Your task to perform on an android device: Go to Yahoo.com Image 0: 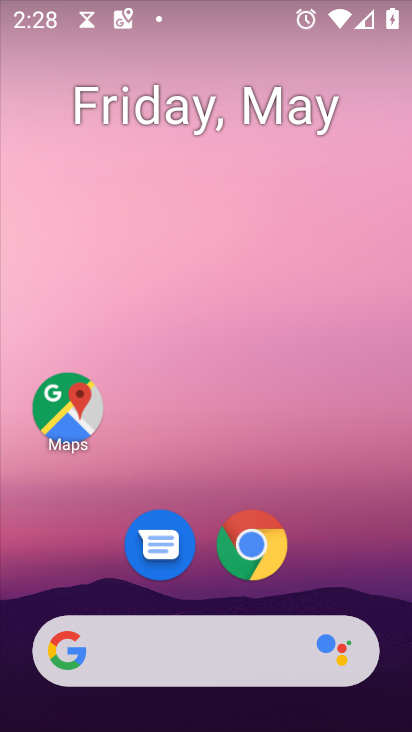
Step 0: click (250, 545)
Your task to perform on an android device: Go to Yahoo.com Image 1: 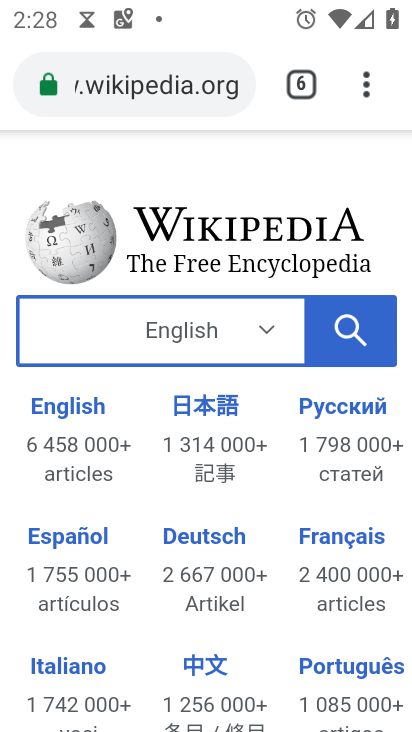
Step 1: click (304, 81)
Your task to perform on an android device: Go to Yahoo.com Image 2: 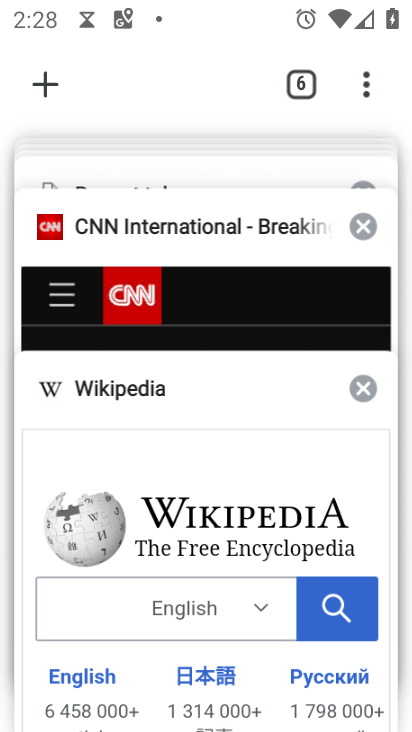
Step 2: drag from (288, 177) to (275, 493)
Your task to perform on an android device: Go to Yahoo.com Image 3: 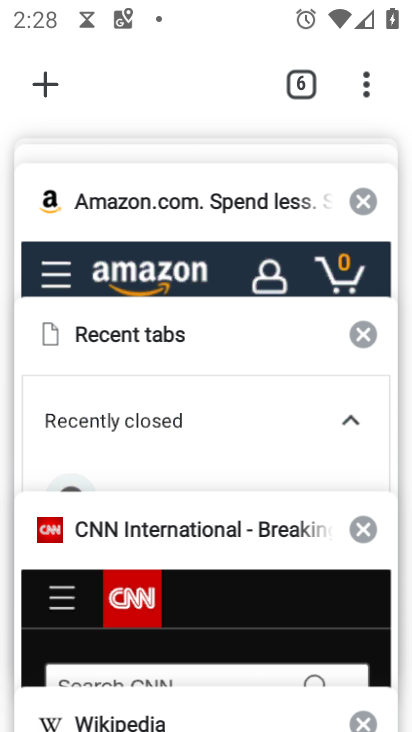
Step 3: drag from (214, 191) to (193, 471)
Your task to perform on an android device: Go to Yahoo.com Image 4: 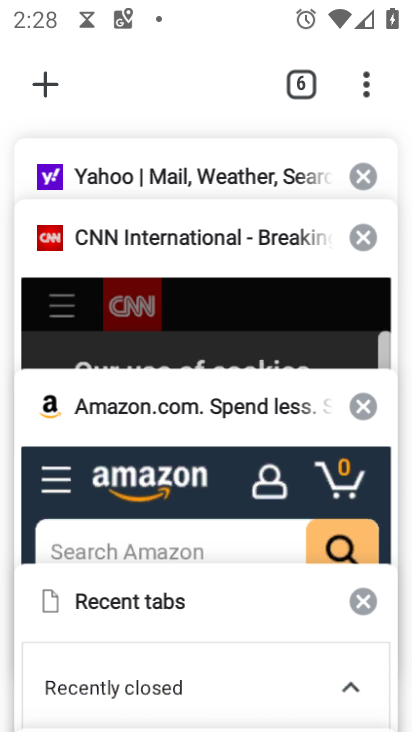
Step 4: click (191, 169)
Your task to perform on an android device: Go to Yahoo.com Image 5: 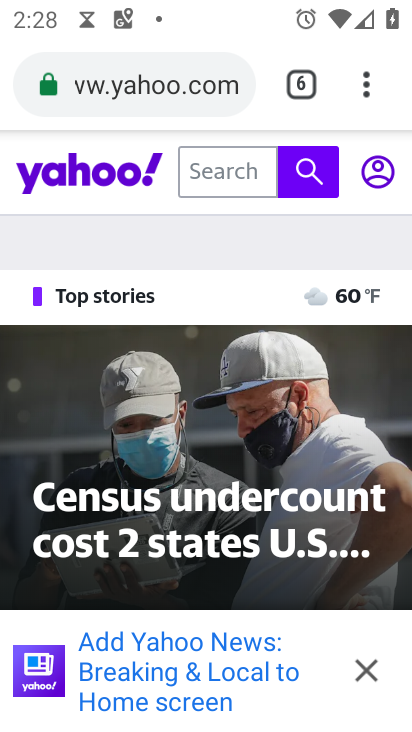
Step 5: task complete